Your task to perform on an android device: turn on sleep mode Image 0: 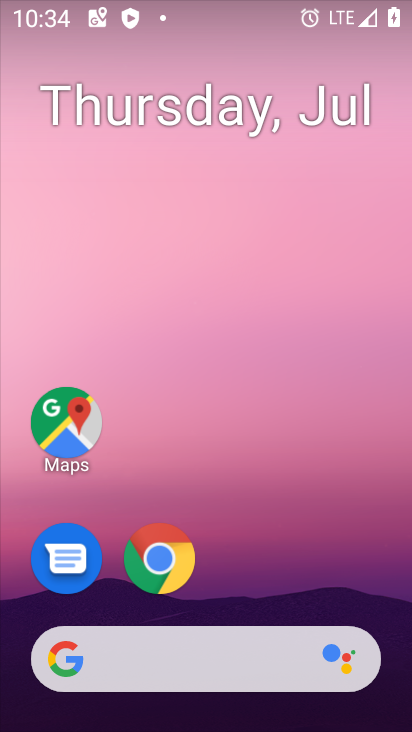
Step 0: drag from (352, 521) to (357, 60)
Your task to perform on an android device: turn on sleep mode Image 1: 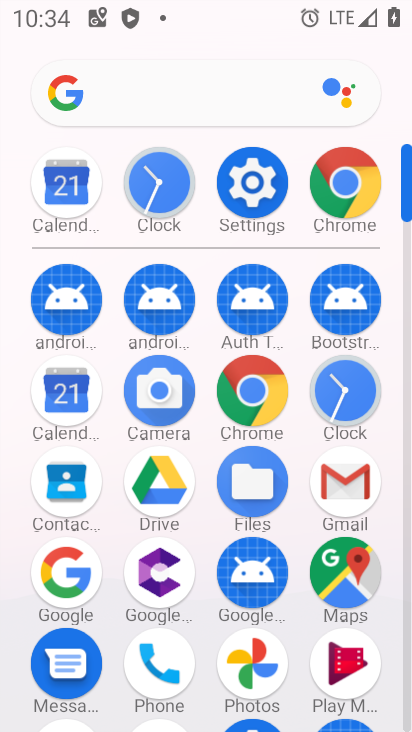
Step 1: click (266, 197)
Your task to perform on an android device: turn on sleep mode Image 2: 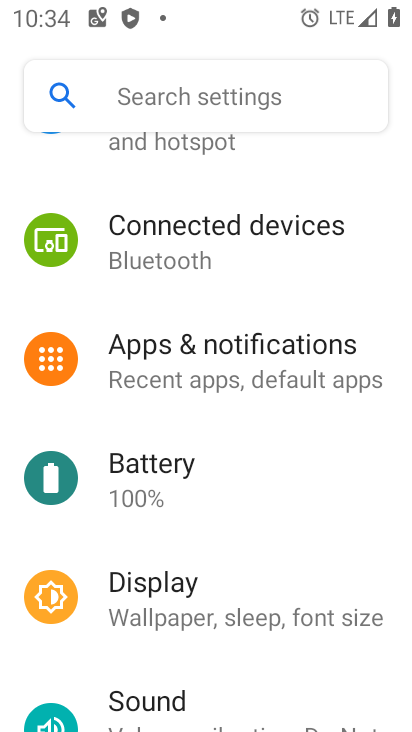
Step 2: drag from (377, 196) to (376, 338)
Your task to perform on an android device: turn on sleep mode Image 3: 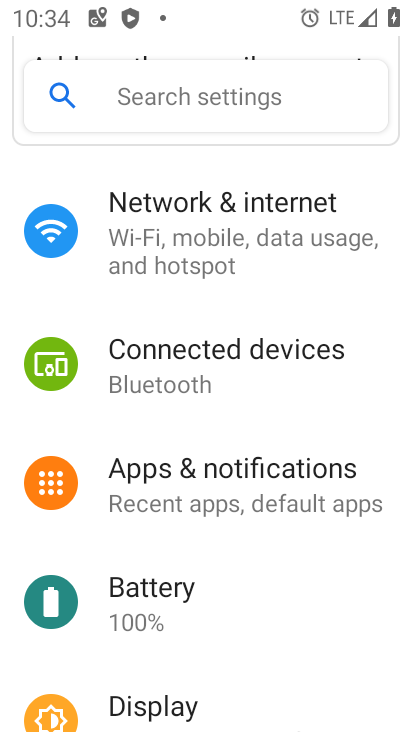
Step 3: drag from (377, 199) to (382, 406)
Your task to perform on an android device: turn on sleep mode Image 4: 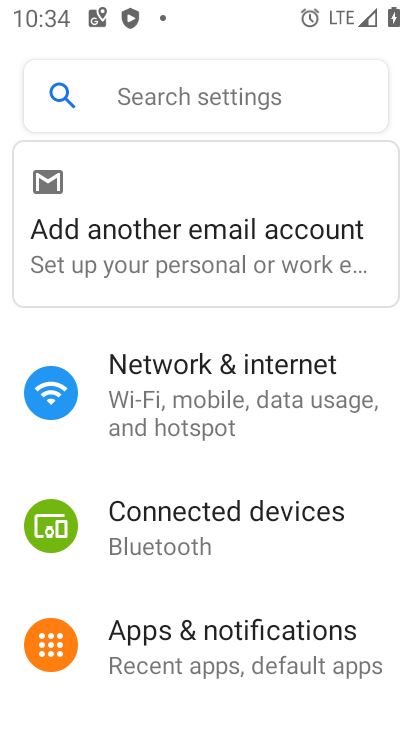
Step 4: drag from (360, 303) to (365, 454)
Your task to perform on an android device: turn on sleep mode Image 5: 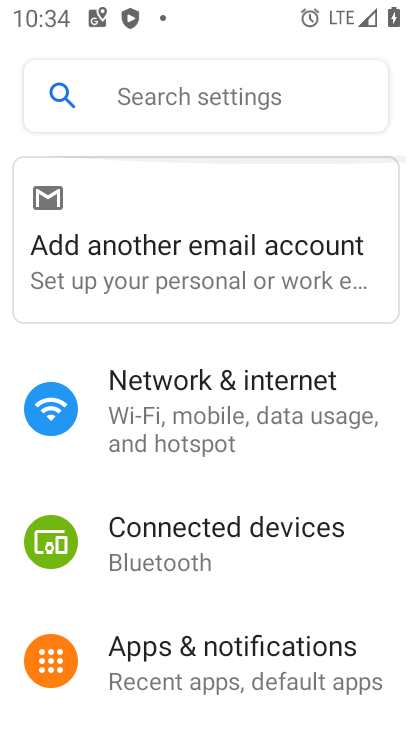
Step 5: drag from (364, 481) to (363, 384)
Your task to perform on an android device: turn on sleep mode Image 6: 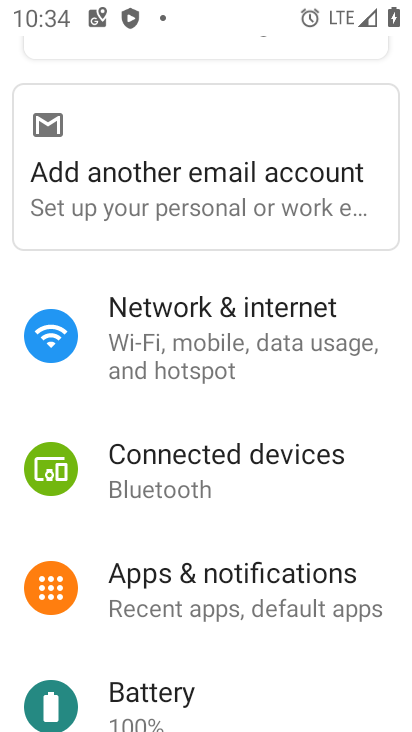
Step 6: drag from (346, 485) to (356, 385)
Your task to perform on an android device: turn on sleep mode Image 7: 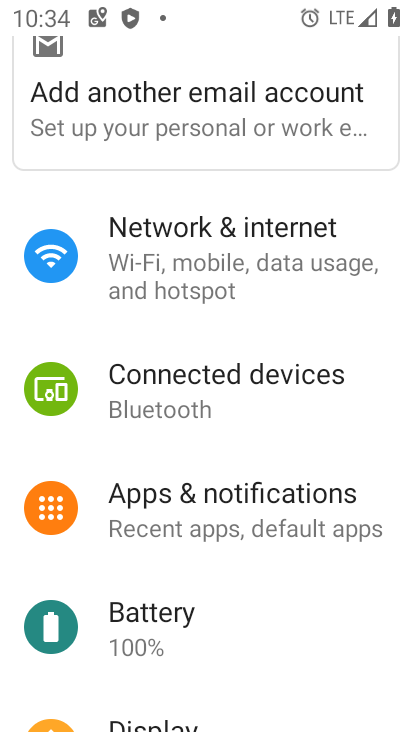
Step 7: drag from (351, 479) to (353, 380)
Your task to perform on an android device: turn on sleep mode Image 8: 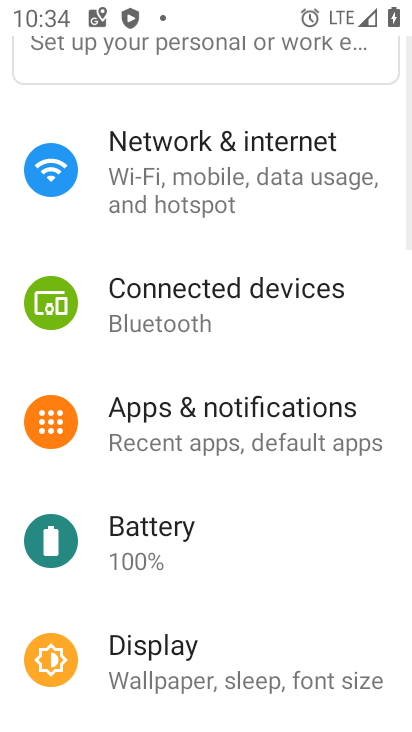
Step 8: drag from (352, 499) to (348, 380)
Your task to perform on an android device: turn on sleep mode Image 9: 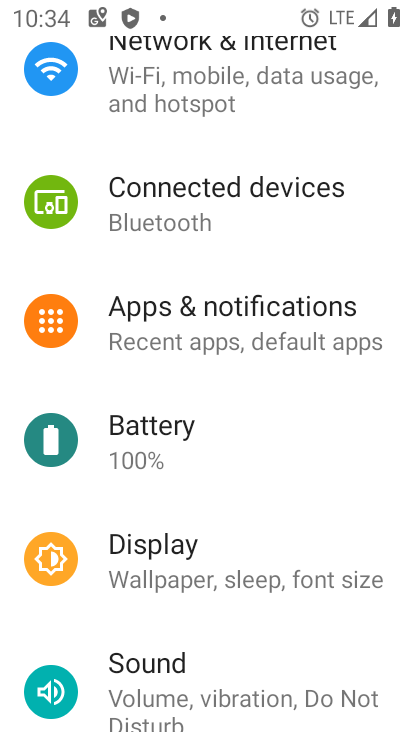
Step 9: drag from (337, 483) to (346, 367)
Your task to perform on an android device: turn on sleep mode Image 10: 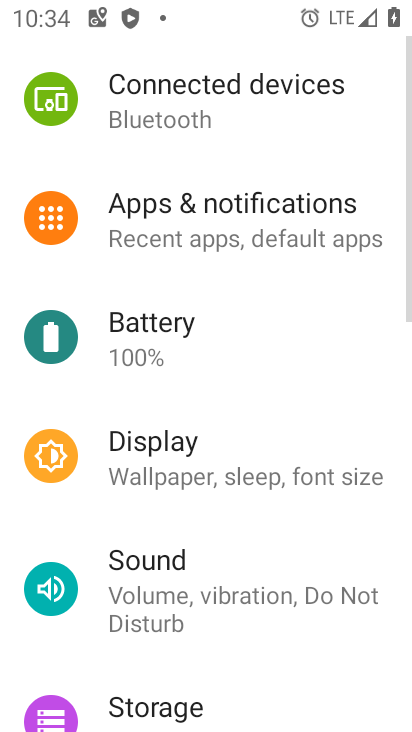
Step 10: drag from (341, 531) to (344, 392)
Your task to perform on an android device: turn on sleep mode Image 11: 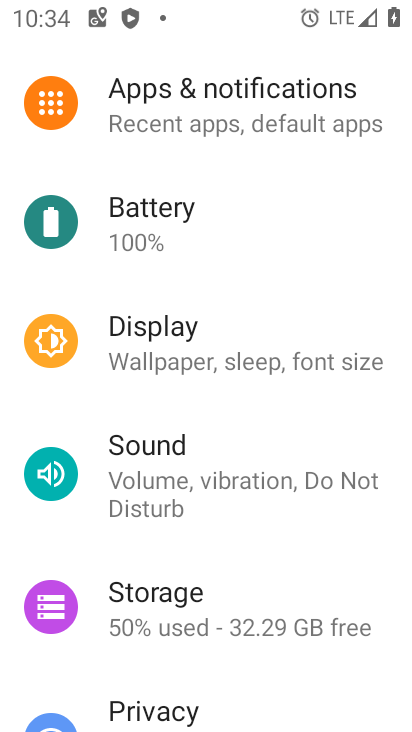
Step 11: drag from (337, 521) to (337, 419)
Your task to perform on an android device: turn on sleep mode Image 12: 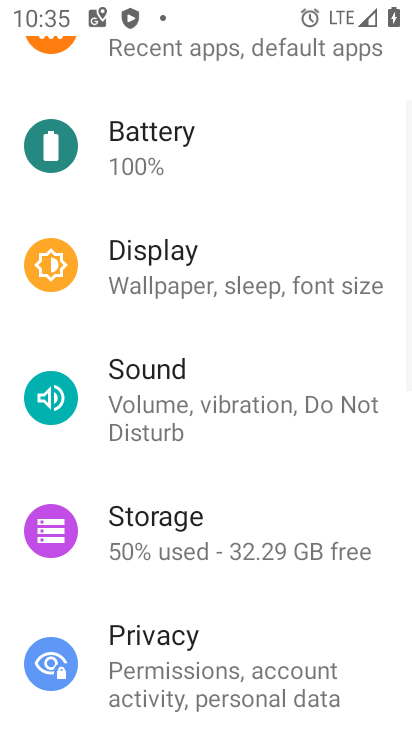
Step 12: click (312, 295)
Your task to perform on an android device: turn on sleep mode Image 13: 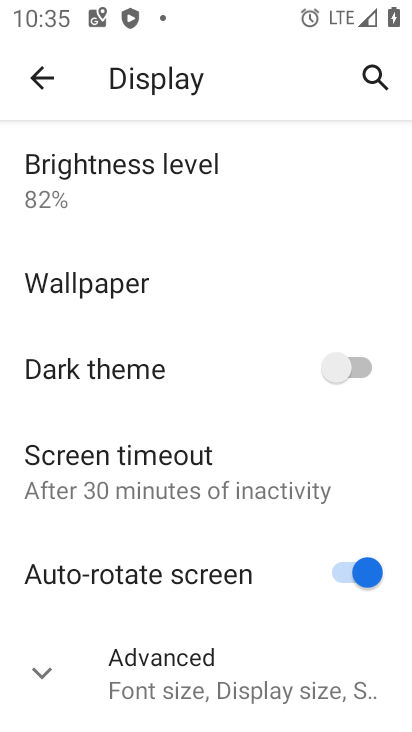
Step 13: click (256, 670)
Your task to perform on an android device: turn on sleep mode Image 14: 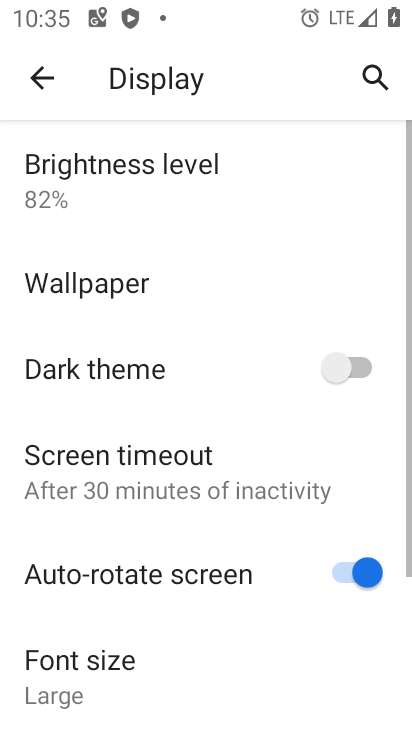
Step 14: task complete